Your task to perform on an android device: open chrome privacy settings Image 0: 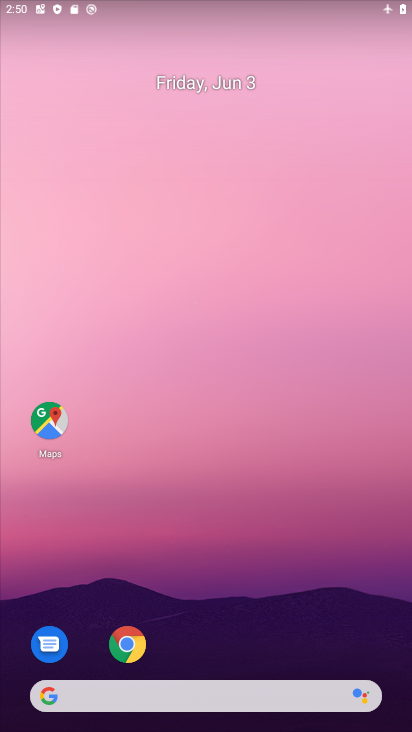
Step 0: click (133, 628)
Your task to perform on an android device: open chrome privacy settings Image 1: 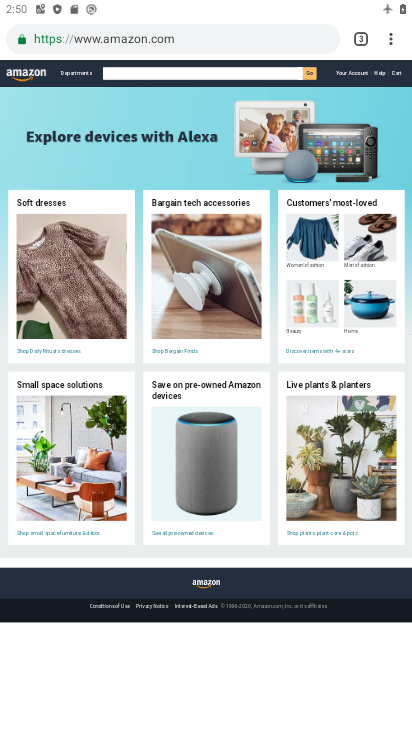
Step 1: click (390, 40)
Your task to perform on an android device: open chrome privacy settings Image 2: 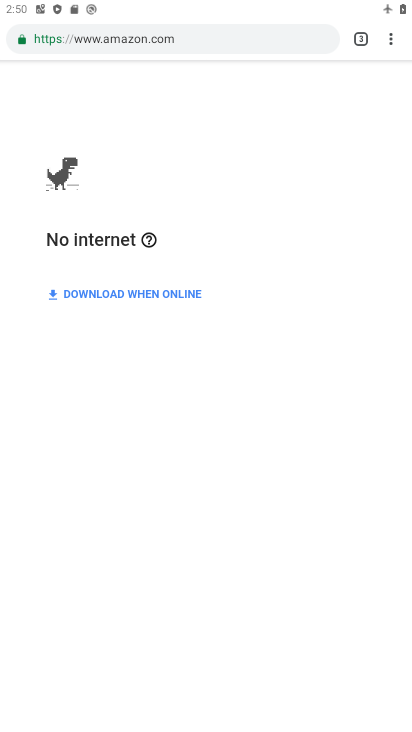
Step 2: drag from (390, 37) to (268, 431)
Your task to perform on an android device: open chrome privacy settings Image 3: 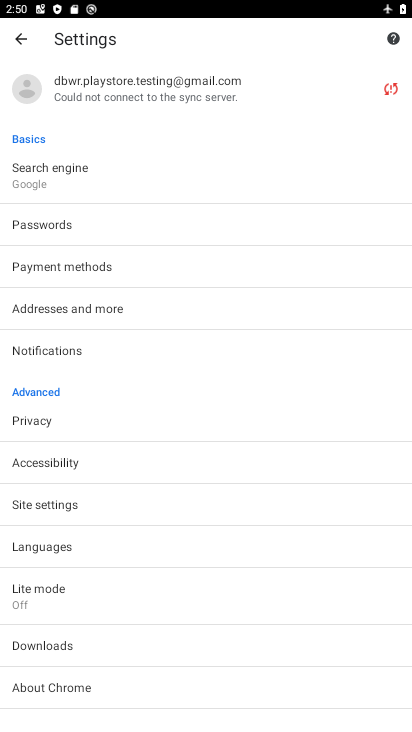
Step 3: click (72, 414)
Your task to perform on an android device: open chrome privacy settings Image 4: 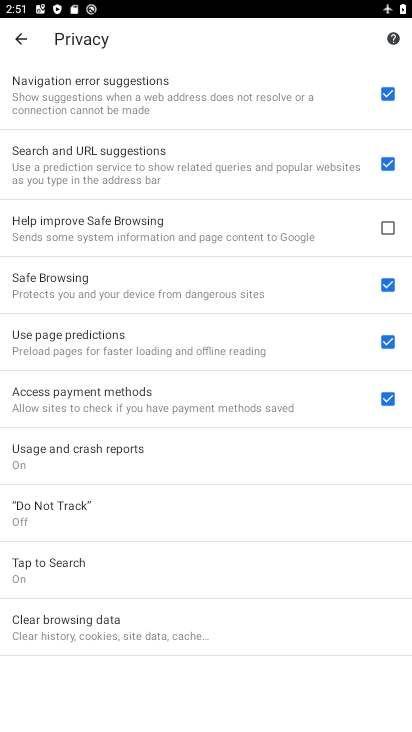
Step 4: task complete